Your task to perform on an android device: stop showing notifications on the lock screen Image 0: 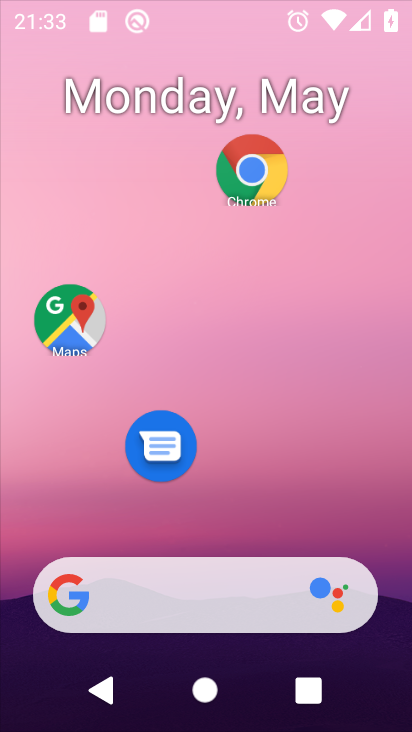
Step 0: press home button
Your task to perform on an android device: stop showing notifications on the lock screen Image 1: 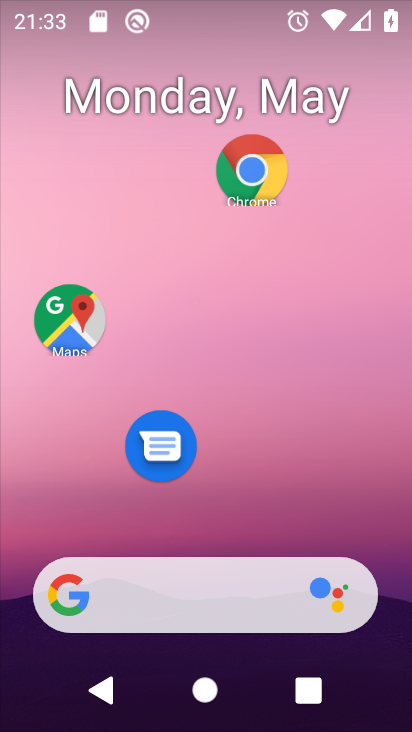
Step 1: drag from (216, 526) to (285, 29)
Your task to perform on an android device: stop showing notifications on the lock screen Image 2: 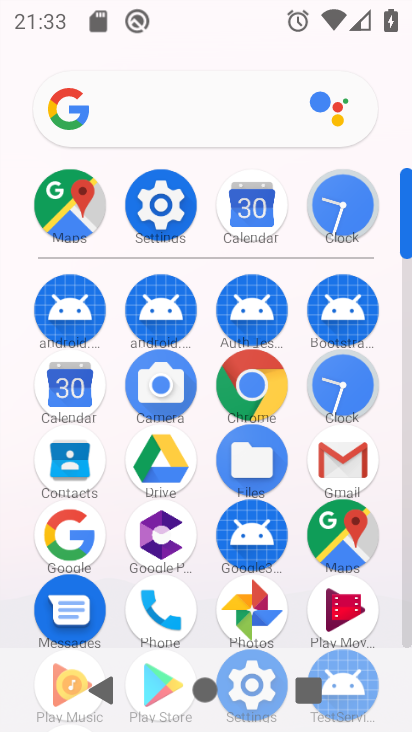
Step 2: click (145, 191)
Your task to perform on an android device: stop showing notifications on the lock screen Image 3: 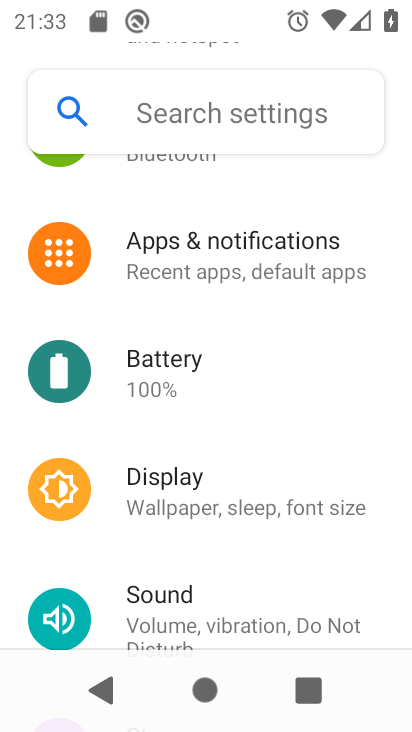
Step 3: click (225, 258)
Your task to perform on an android device: stop showing notifications on the lock screen Image 4: 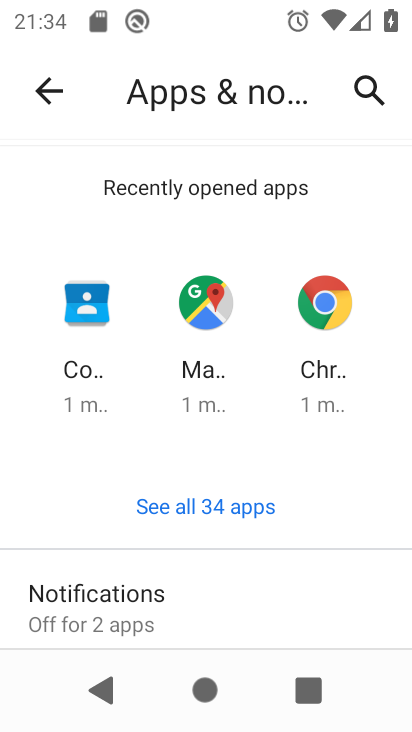
Step 4: click (188, 612)
Your task to perform on an android device: stop showing notifications on the lock screen Image 5: 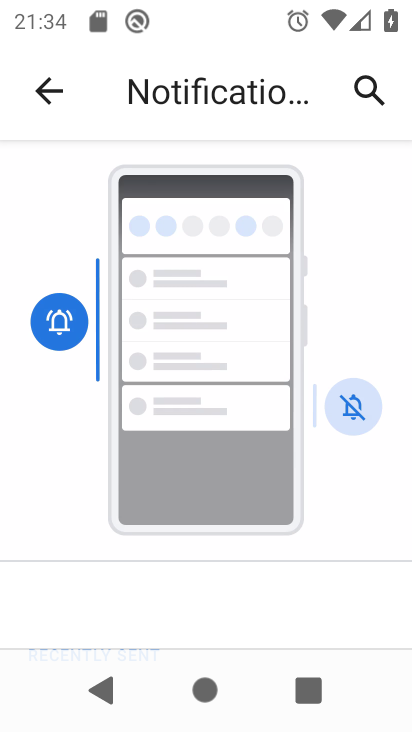
Step 5: drag from (229, 634) to (226, 226)
Your task to perform on an android device: stop showing notifications on the lock screen Image 6: 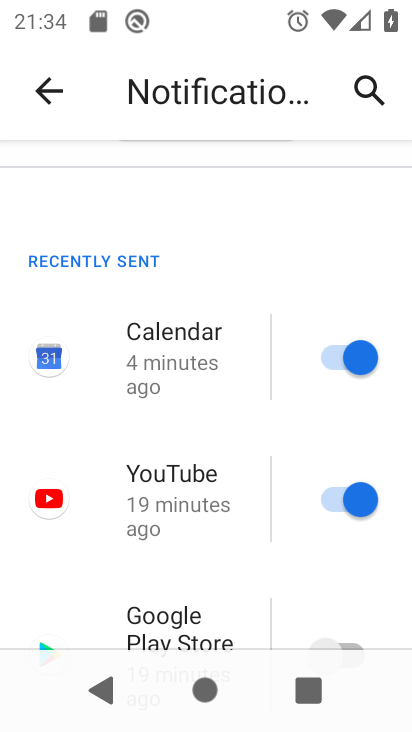
Step 6: drag from (207, 603) to (233, 181)
Your task to perform on an android device: stop showing notifications on the lock screen Image 7: 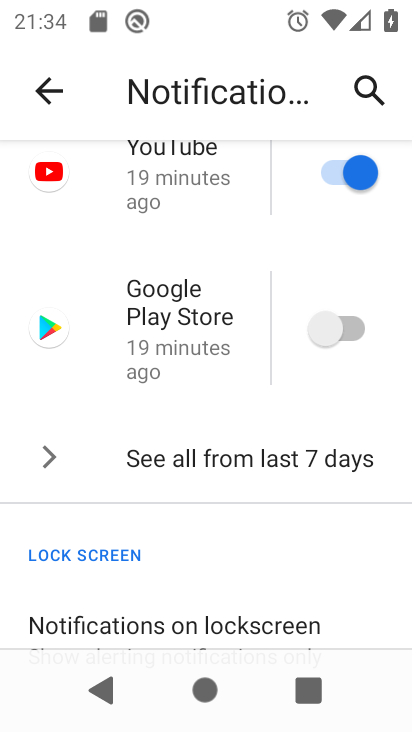
Step 7: click (277, 618)
Your task to perform on an android device: stop showing notifications on the lock screen Image 8: 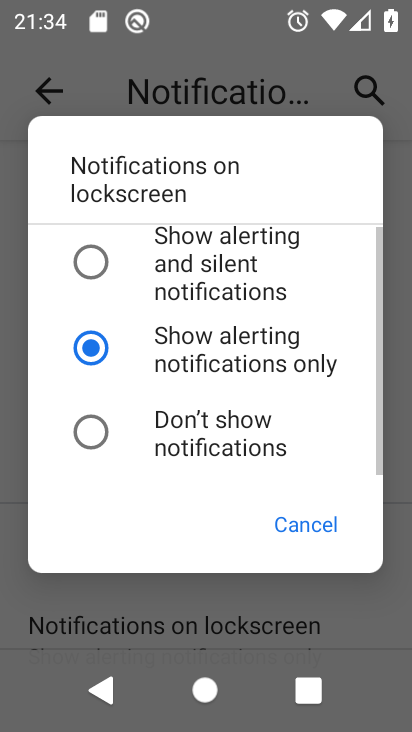
Step 8: click (84, 432)
Your task to perform on an android device: stop showing notifications on the lock screen Image 9: 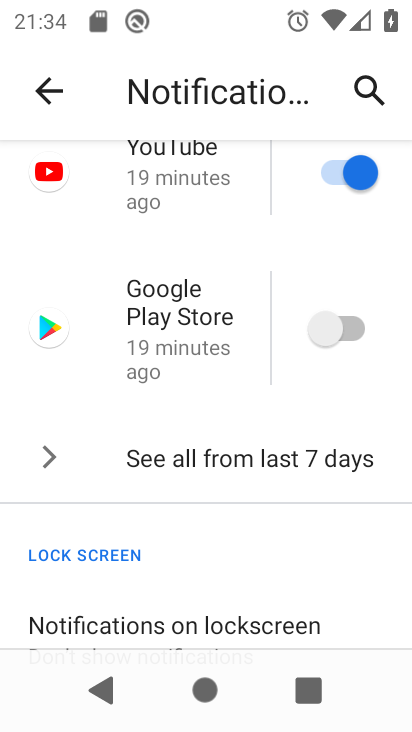
Step 9: task complete